Your task to perform on an android device: toggle priority inbox in the gmail app Image 0: 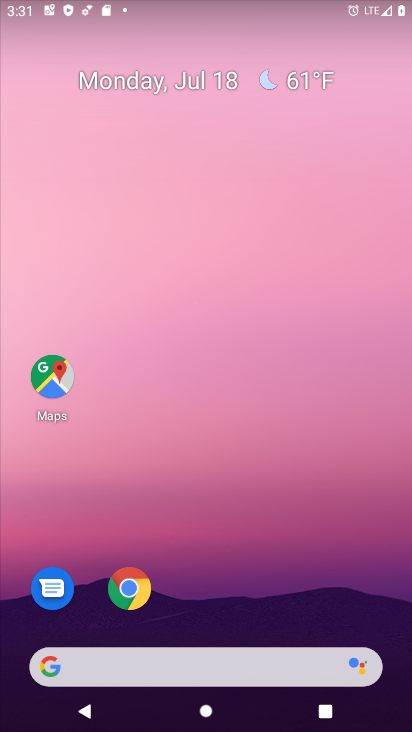
Step 0: drag from (209, 525) to (259, 43)
Your task to perform on an android device: toggle priority inbox in the gmail app Image 1: 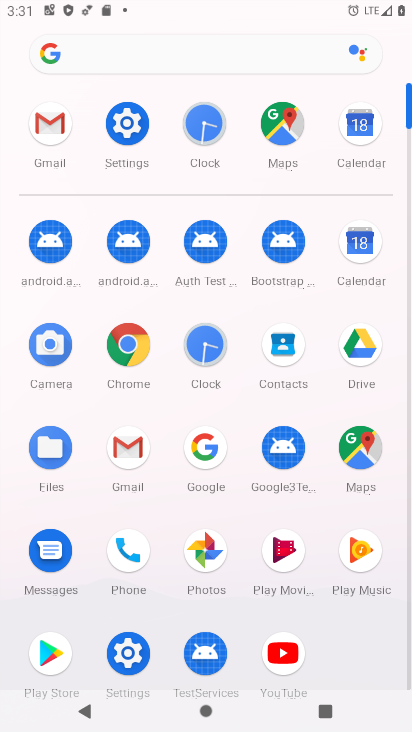
Step 1: click (52, 124)
Your task to perform on an android device: toggle priority inbox in the gmail app Image 2: 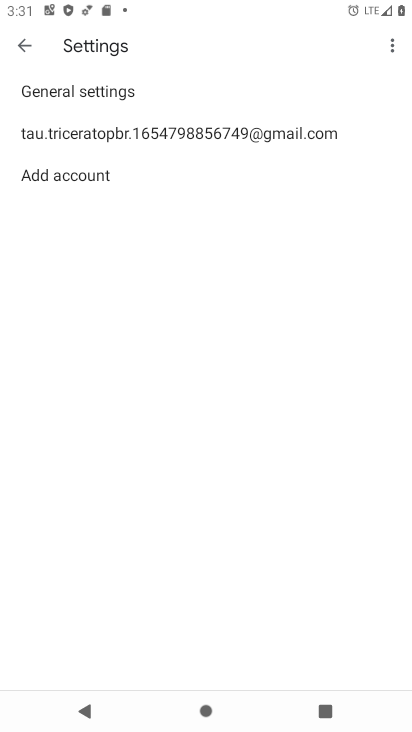
Step 2: click (129, 129)
Your task to perform on an android device: toggle priority inbox in the gmail app Image 3: 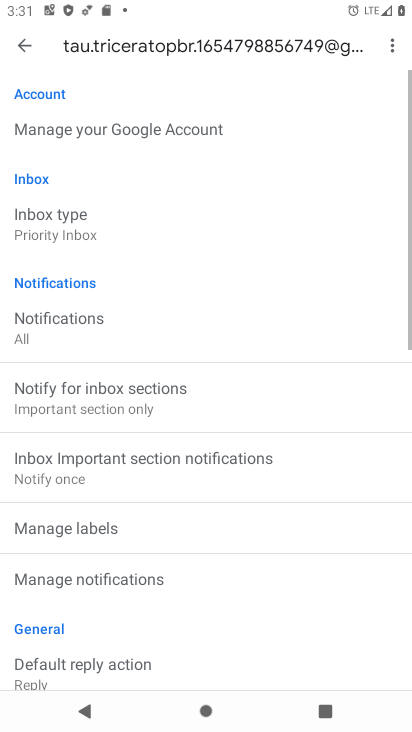
Step 3: click (64, 228)
Your task to perform on an android device: toggle priority inbox in the gmail app Image 4: 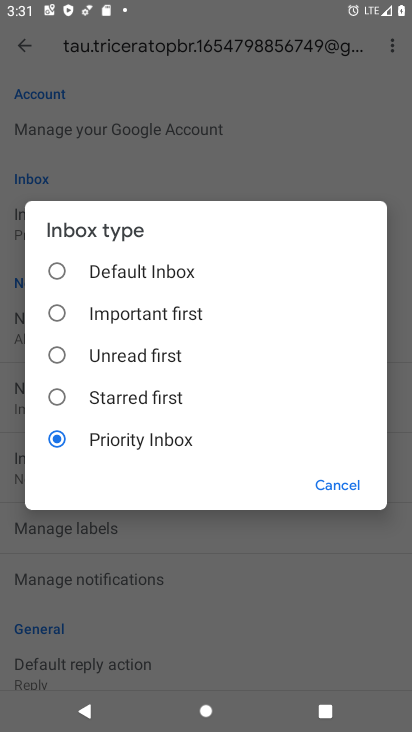
Step 4: click (56, 433)
Your task to perform on an android device: toggle priority inbox in the gmail app Image 5: 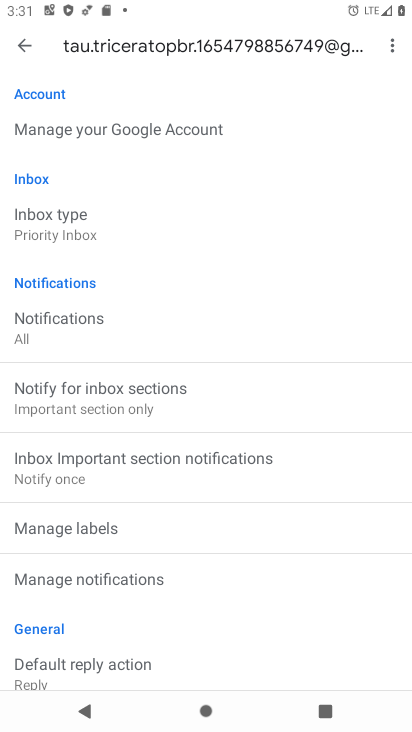
Step 5: task complete